Your task to perform on an android device: Clear all items from cart on bestbuy.com. Add apple airpods to the cart on bestbuy.com, then select checkout. Image 0: 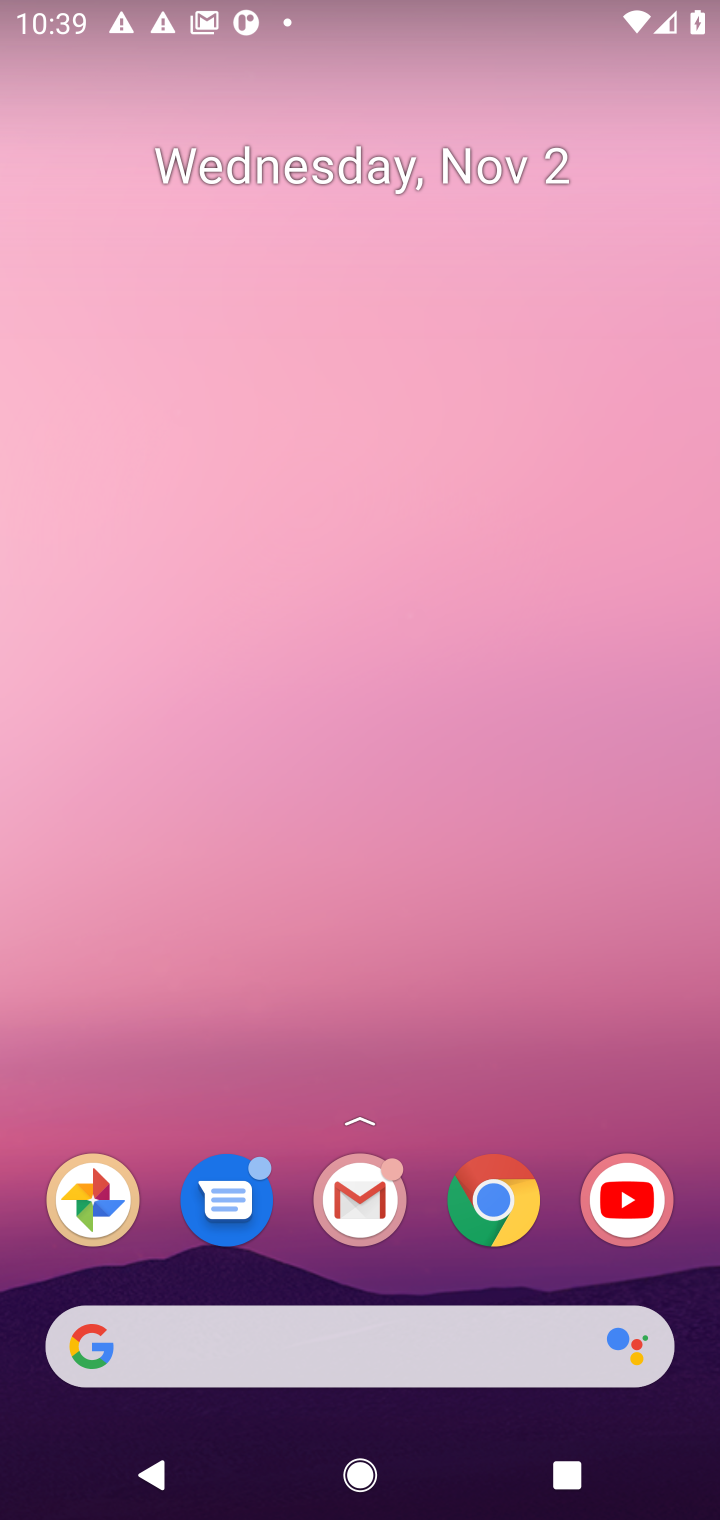
Step 0: click (507, 1205)
Your task to perform on an android device: Clear all items from cart on bestbuy.com. Add apple airpods to the cart on bestbuy.com, then select checkout. Image 1: 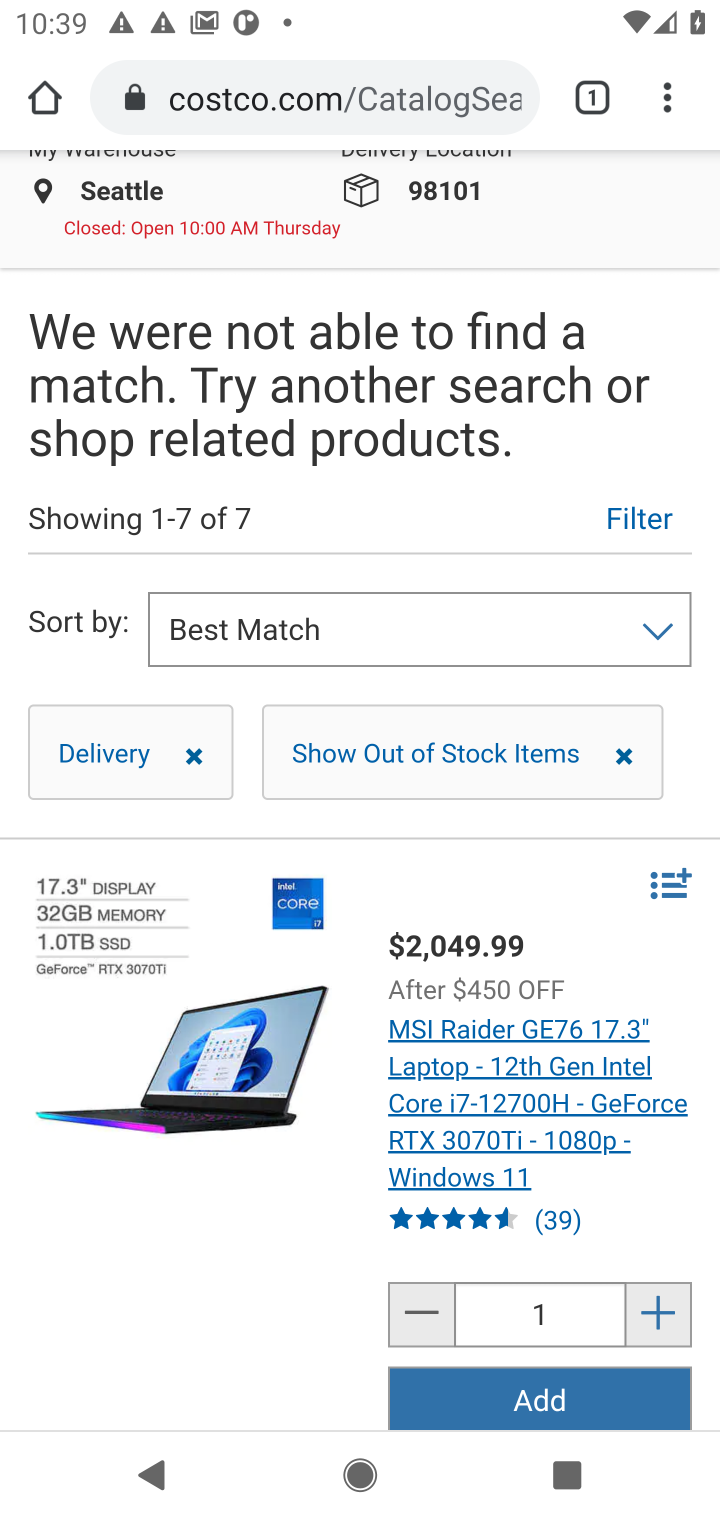
Step 1: click (375, 93)
Your task to perform on an android device: Clear all items from cart on bestbuy.com. Add apple airpods to the cart on bestbuy.com, then select checkout. Image 2: 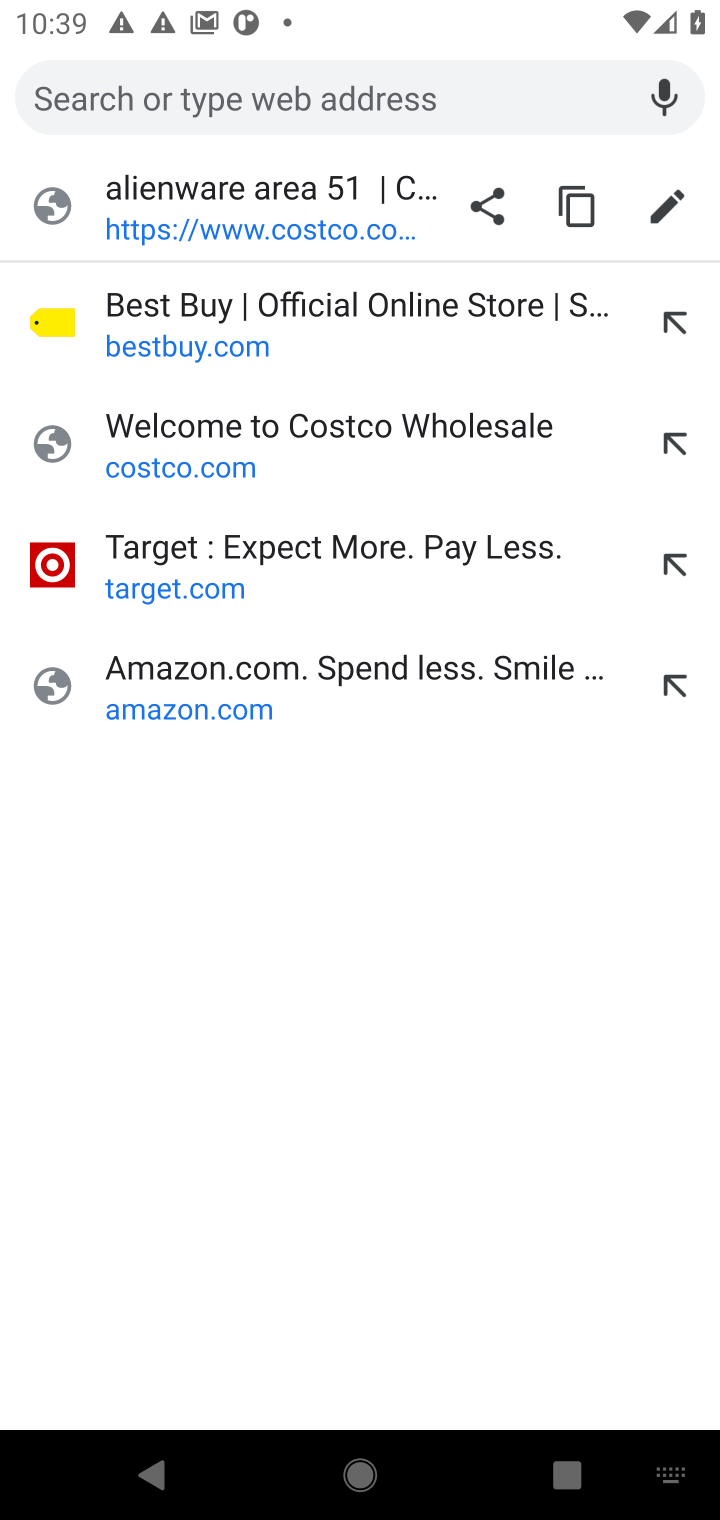
Step 2: press enter
Your task to perform on an android device: Clear all items from cart on bestbuy.com. Add apple airpods to the cart on bestbuy.com, then select checkout. Image 3: 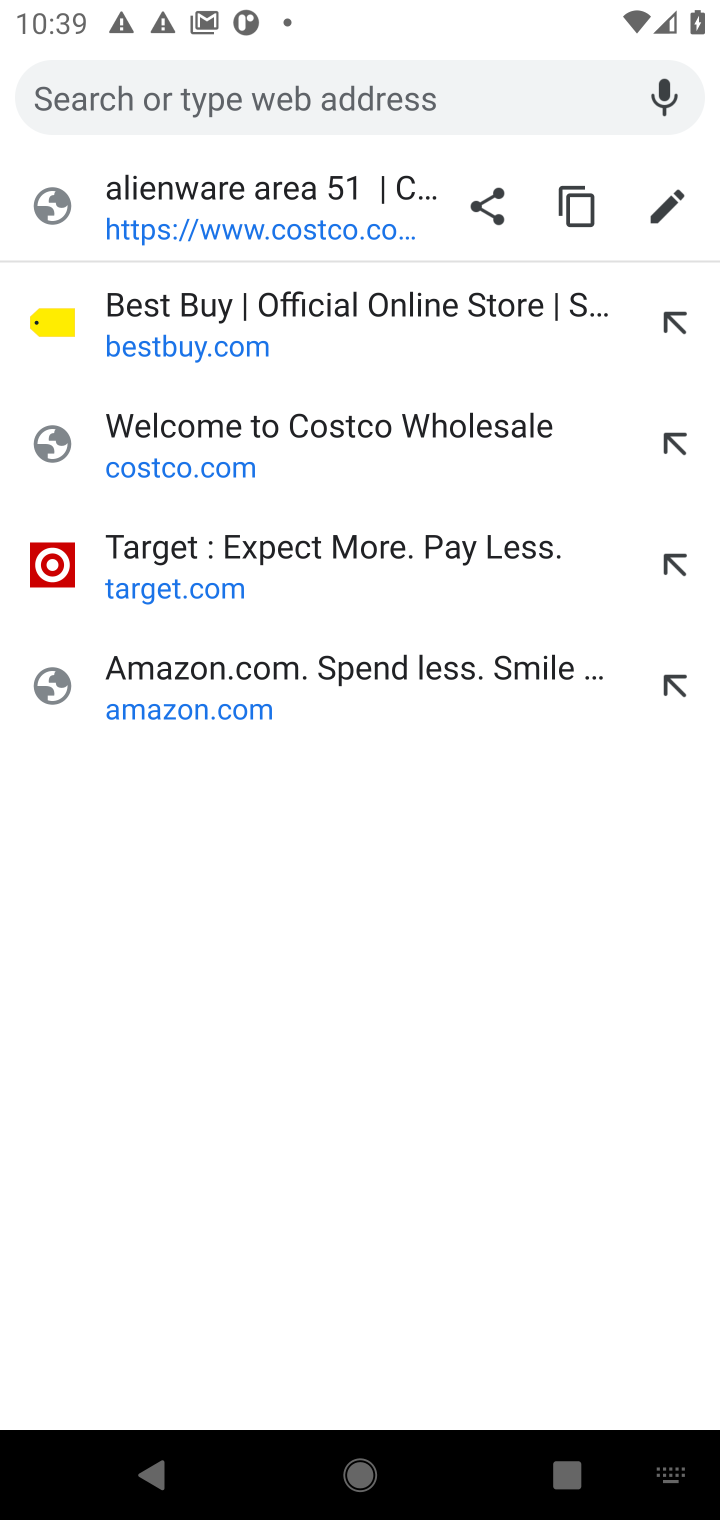
Step 3: type "bestbuy.com"
Your task to perform on an android device: Clear all items from cart on bestbuy.com. Add apple airpods to the cart on bestbuy.com, then select checkout. Image 4: 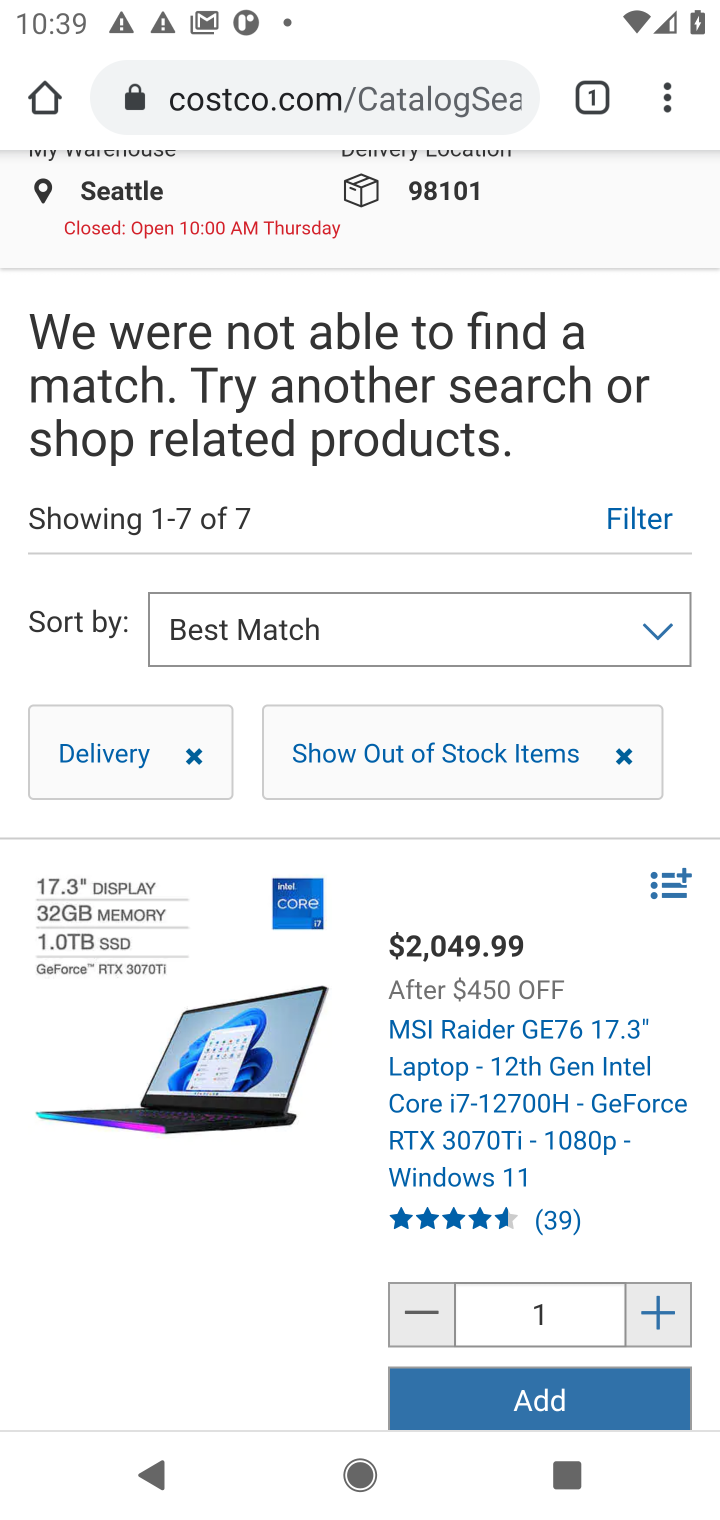
Step 4: click (460, 84)
Your task to perform on an android device: Clear all items from cart on bestbuy.com. Add apple airpods to the cart on bestbuy.com, then select checkout. Image 5: 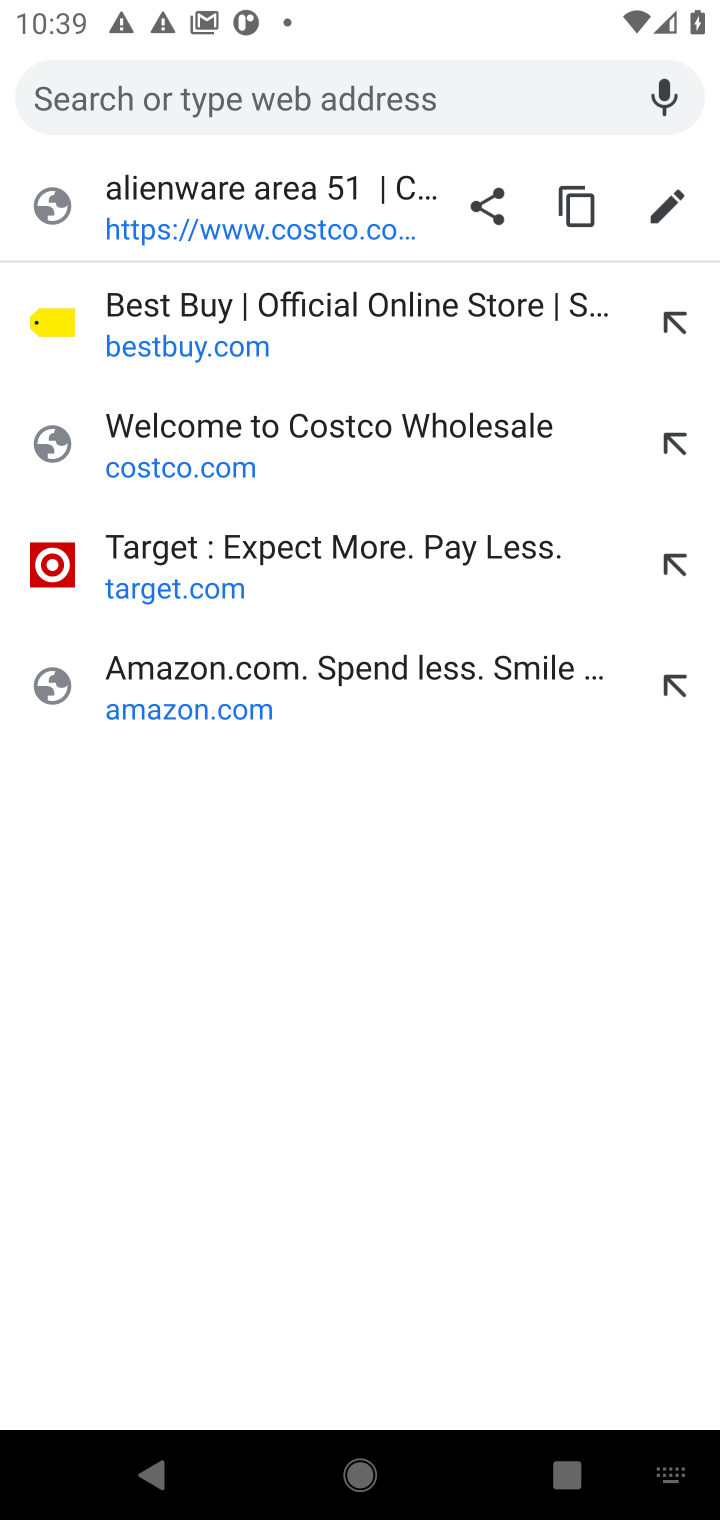
Step 5: type "bestbuy.com"
Your task to perform on an android device: Clear all items from cart on bestbuy.com. Add apple airpods to the cart on bestbuy.com, then select checkout. Image 6: 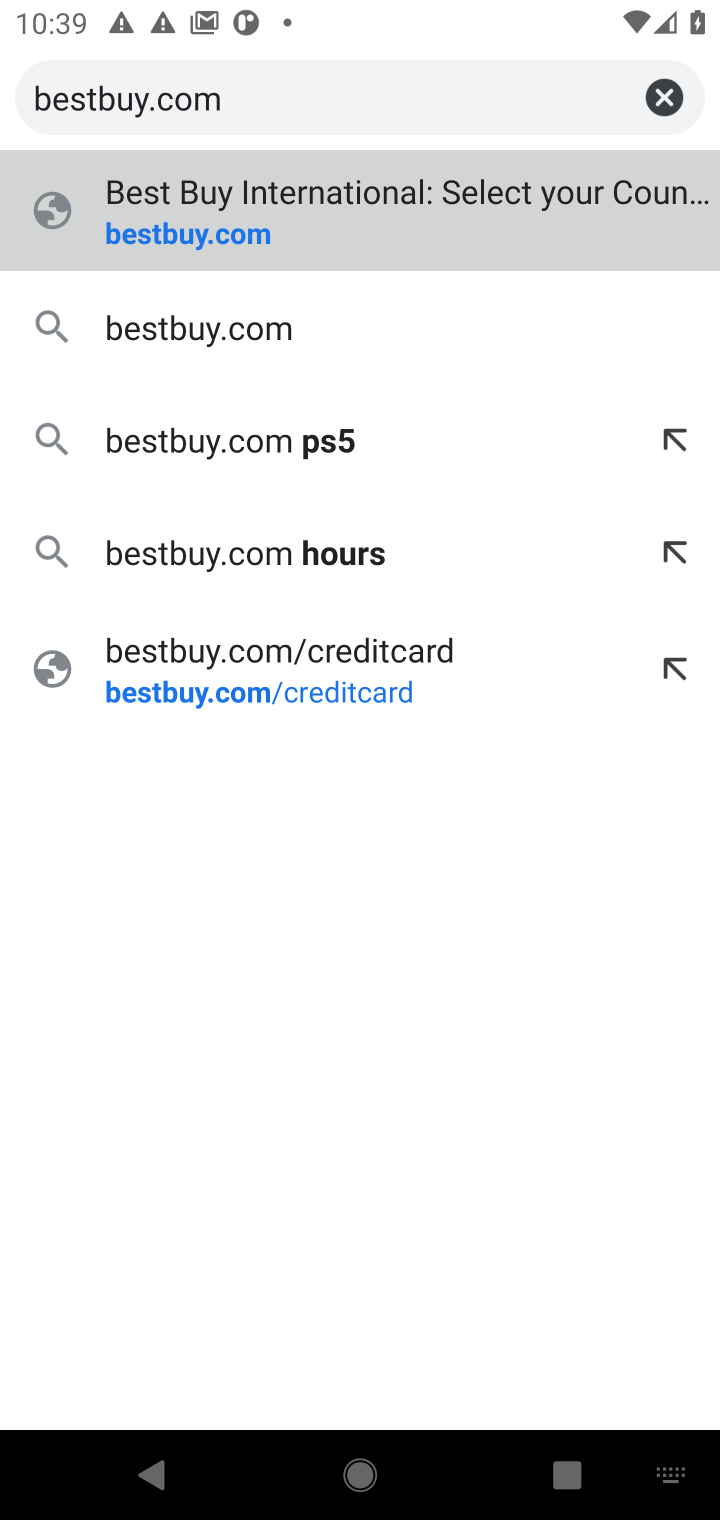
Step 6: press enter
Your task to perform on an android device: Clear all items from cart on bestbuy.com. Add apple airpods to the cart on bestbuy.com, then select checkout. Image 7: 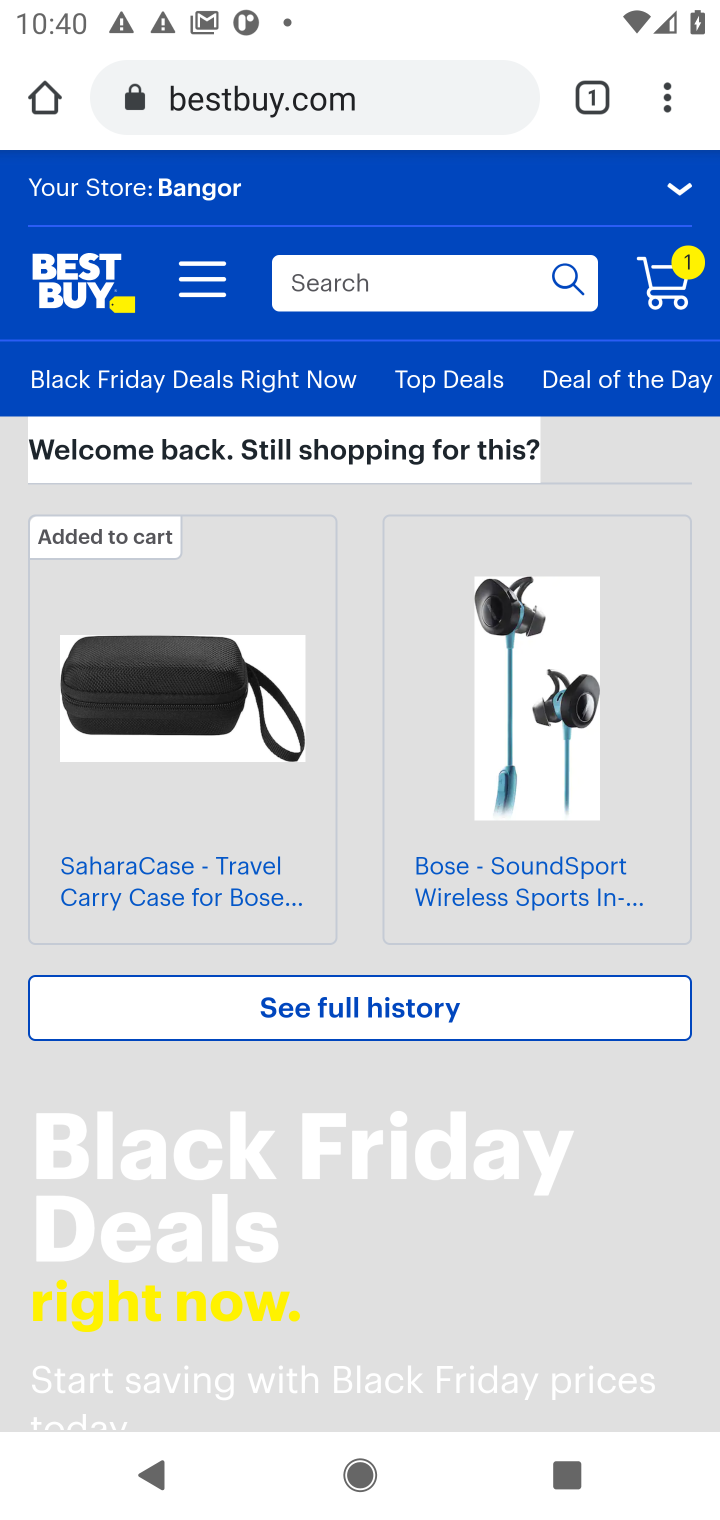
Step 7: click (444, 284)
Your task to perform on an android device: Clear all items from cart on bestbuy.com. Add apple airpods to the cart on bestbuy.com, then select checkout. Image 8: 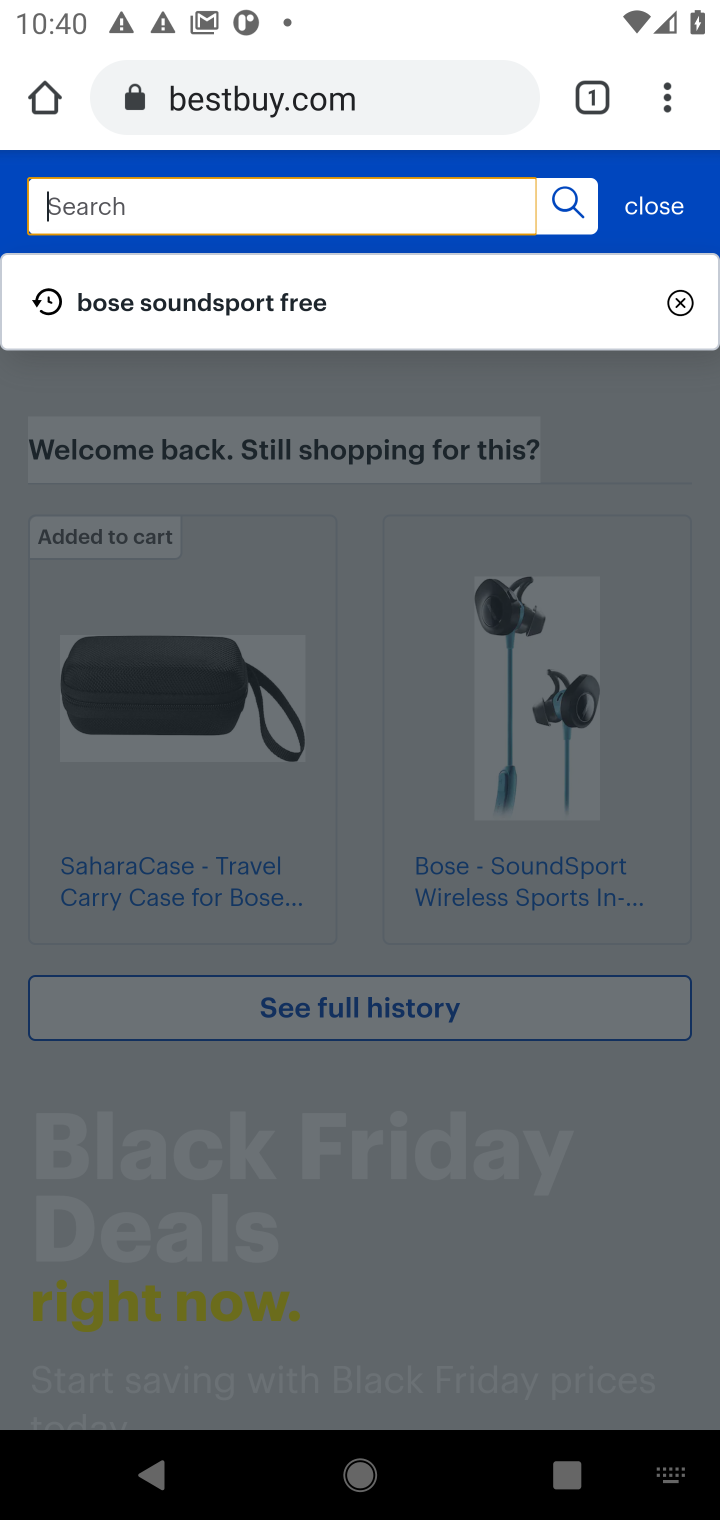
Step 8: type "apple airpods"
Your task to perform on an android device: Clear all items from cart on bestbuy.com. Add apple airpods to the cart on bestbuy.com, then select checkout. Image 9: 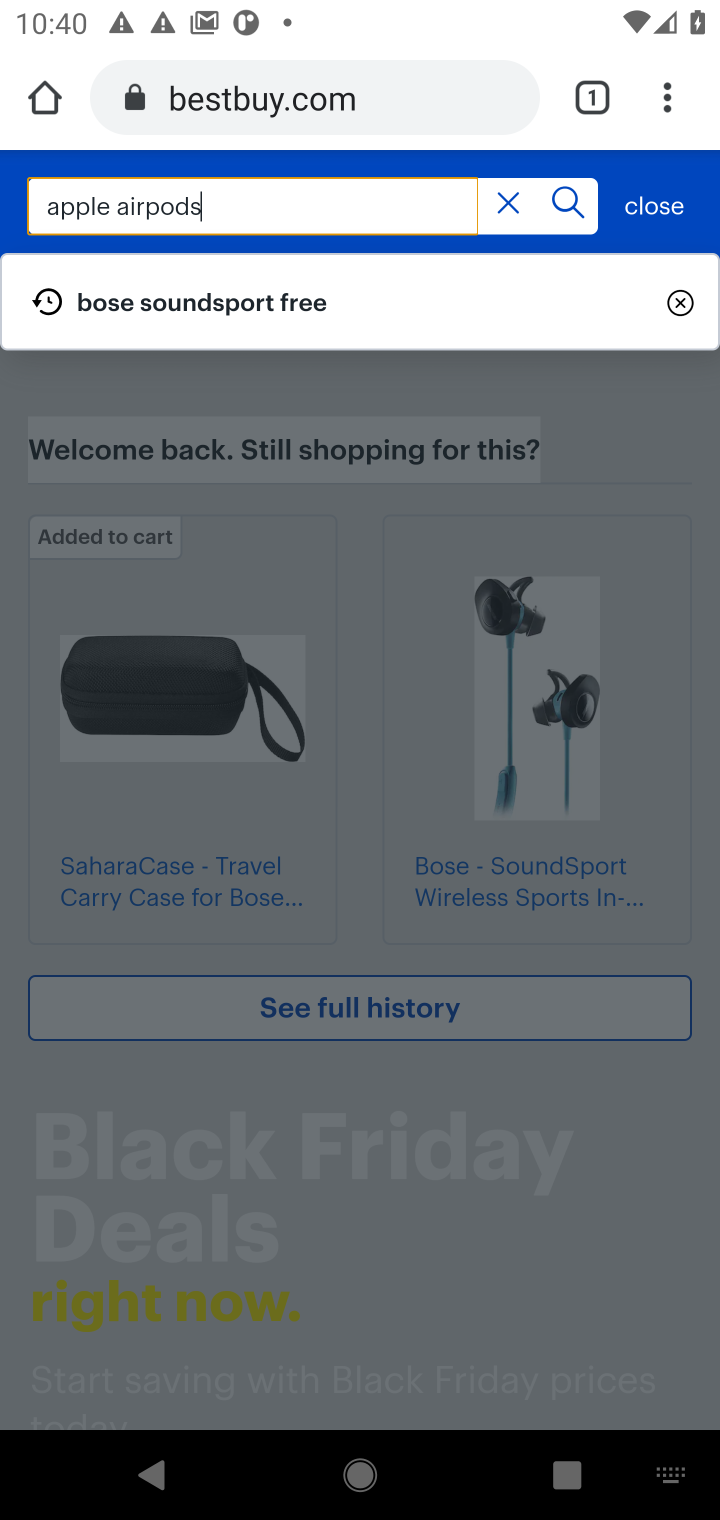
Step 9: press enter
Your task to perform on an android device: Clear all items from cart on bestbuy.com. Add apple airpods to the cart on bestbuy.com, then select checkout. Image 10: 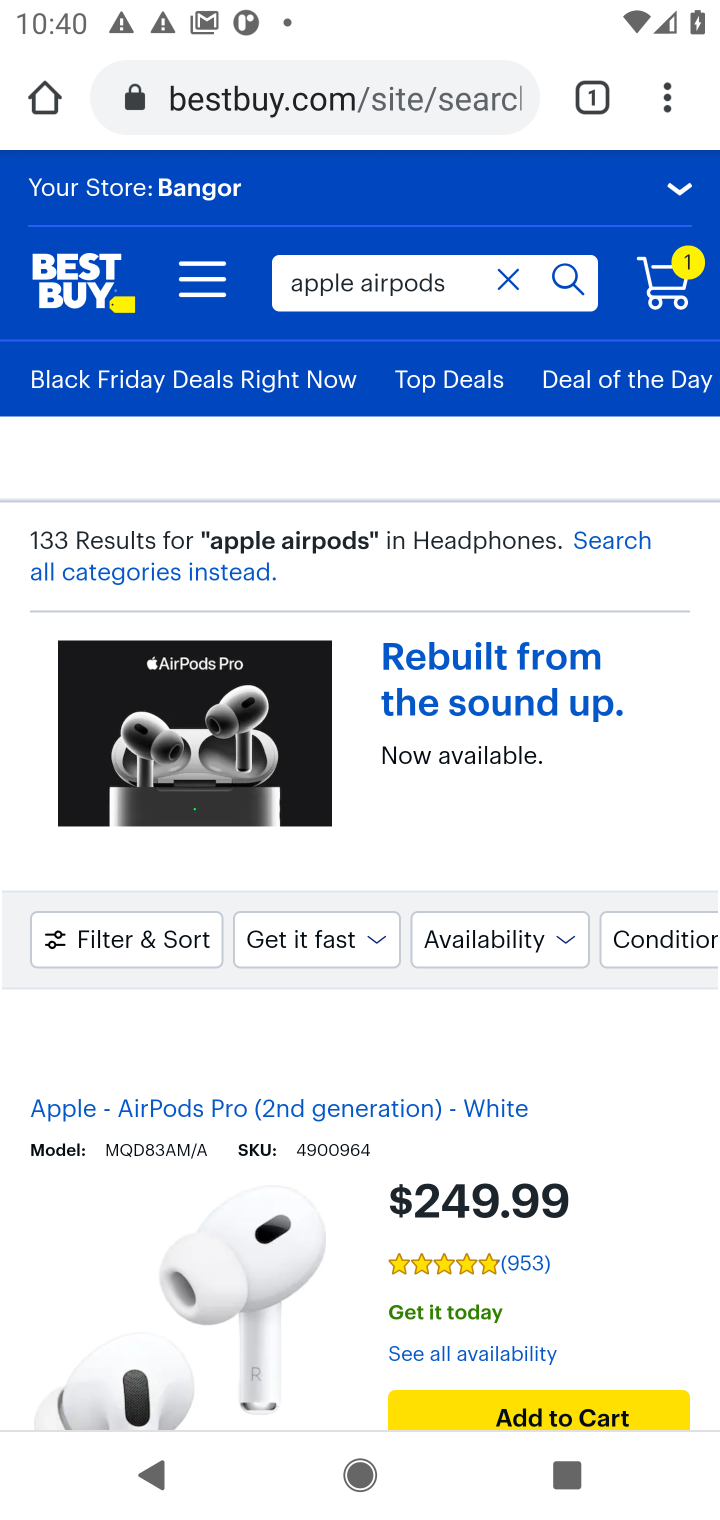
Step 10: drag from (226, 1229) to (378, 669)
Your task to perform on an android device: Clear all items from cart on bestbuy.com. Add apple airpods to the cart on bestbuy.com, then select checkout. Image 11: 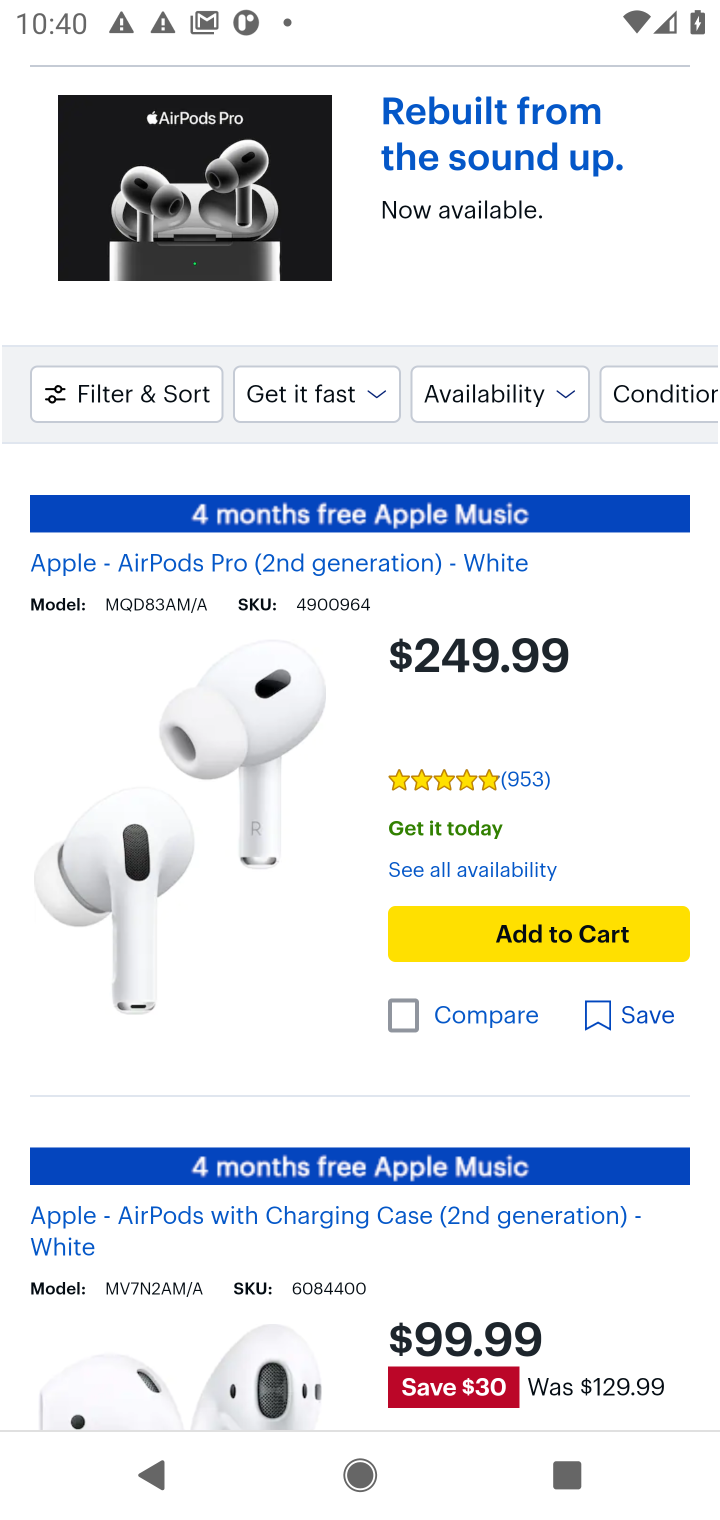
Step 11: click (172, 737)
Your task to perform on an android device: Clear all items from cart on bestbuy.com. Add apple airpods to the cart on bestbuy.com, then select checkout. Image 12: 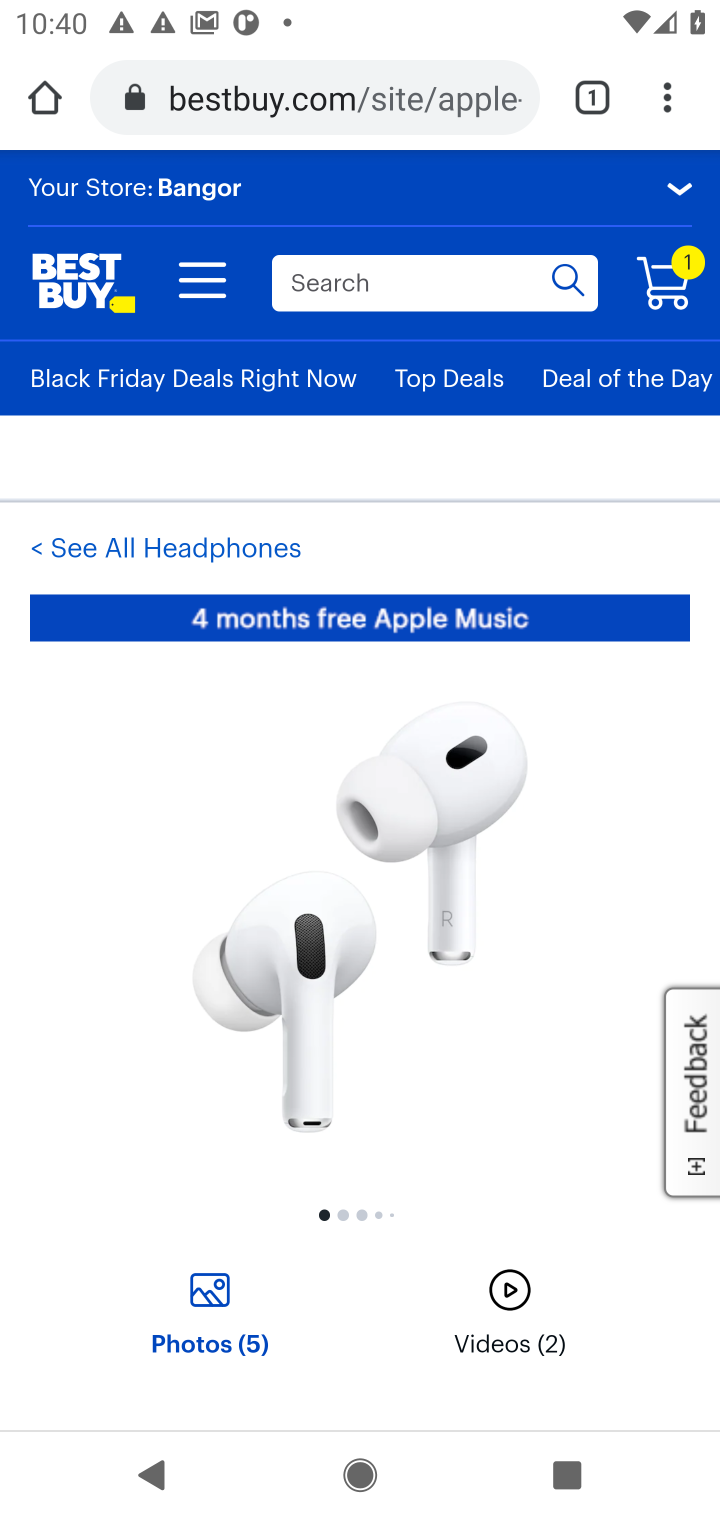
Step 12: drag from (358, 1080) to (360, 353)
Your task to perform on an android device: Clear all items from cart on bestbuy.com. Add apple airpods to the cart on bestbuy.com, then select checkout. Image 13: 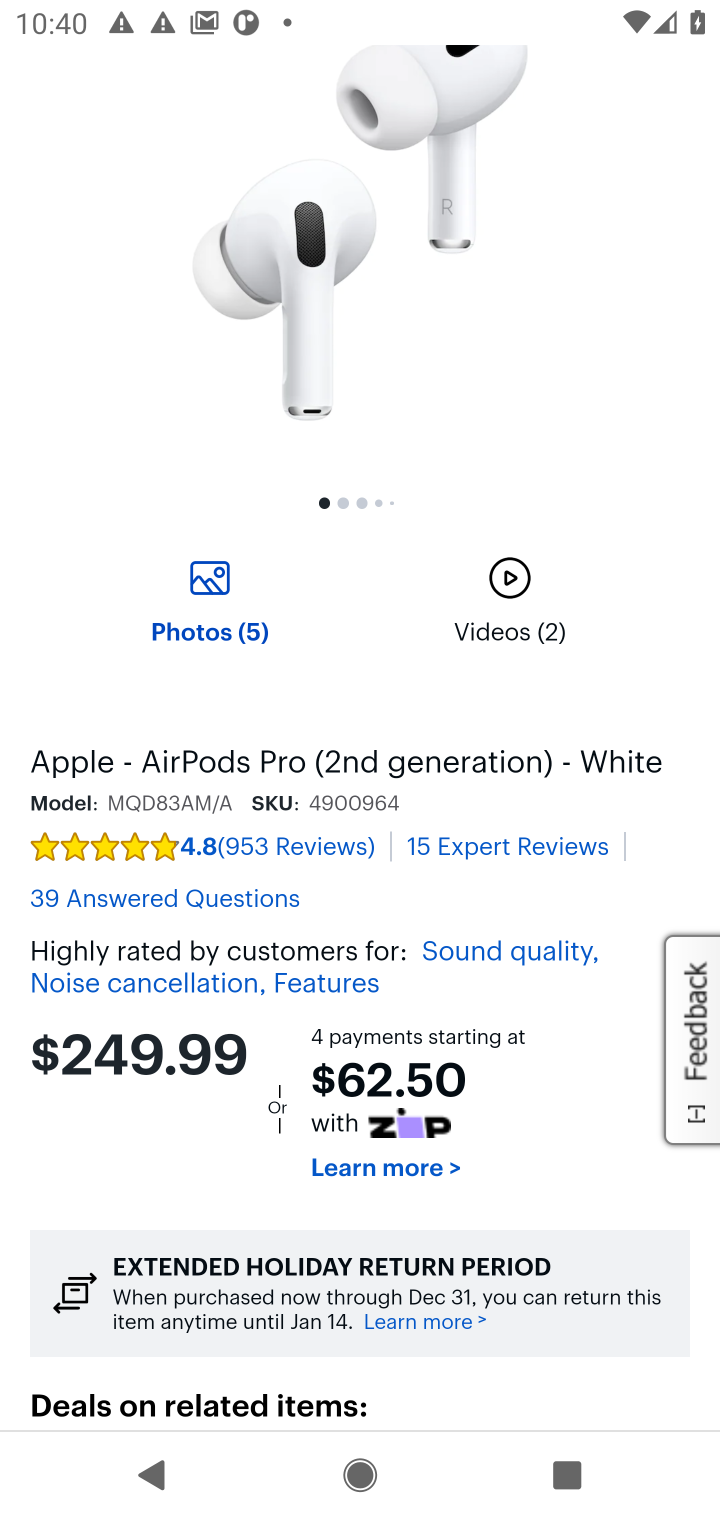
Step 13: drag from (502, 1074) to (514, 440)
Your task to perform on an android device: Clear all items from cart on bestbuy.com. Add apple airpods to the cart on bestbuy.com, then select checkout. Image 14: 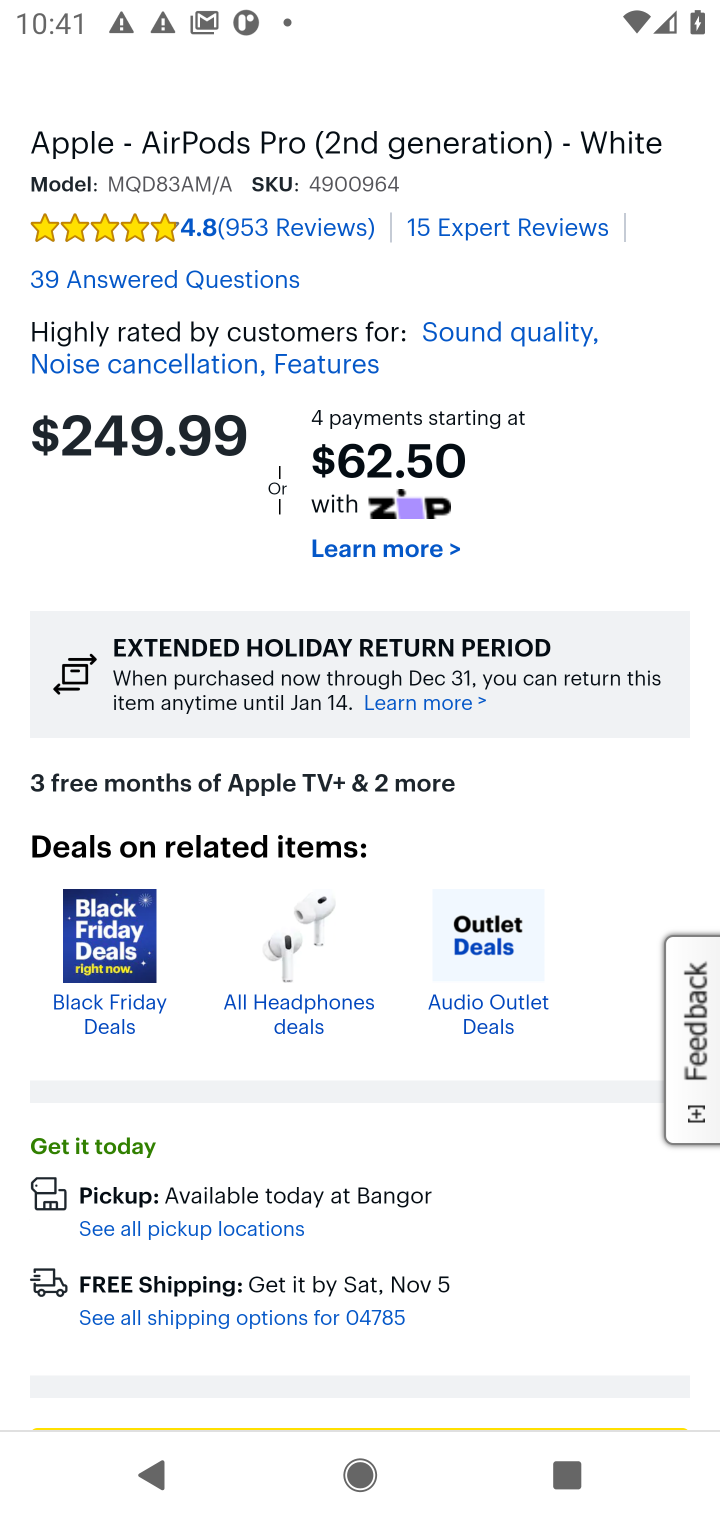
Step 14: drag from (553, 889) to (537, 438)
Your task to perform on an android device: Clear all items from cart on bestbuy.com. Add apple airpods to the cart on bestbuy.com, then select checkout. Image 15: 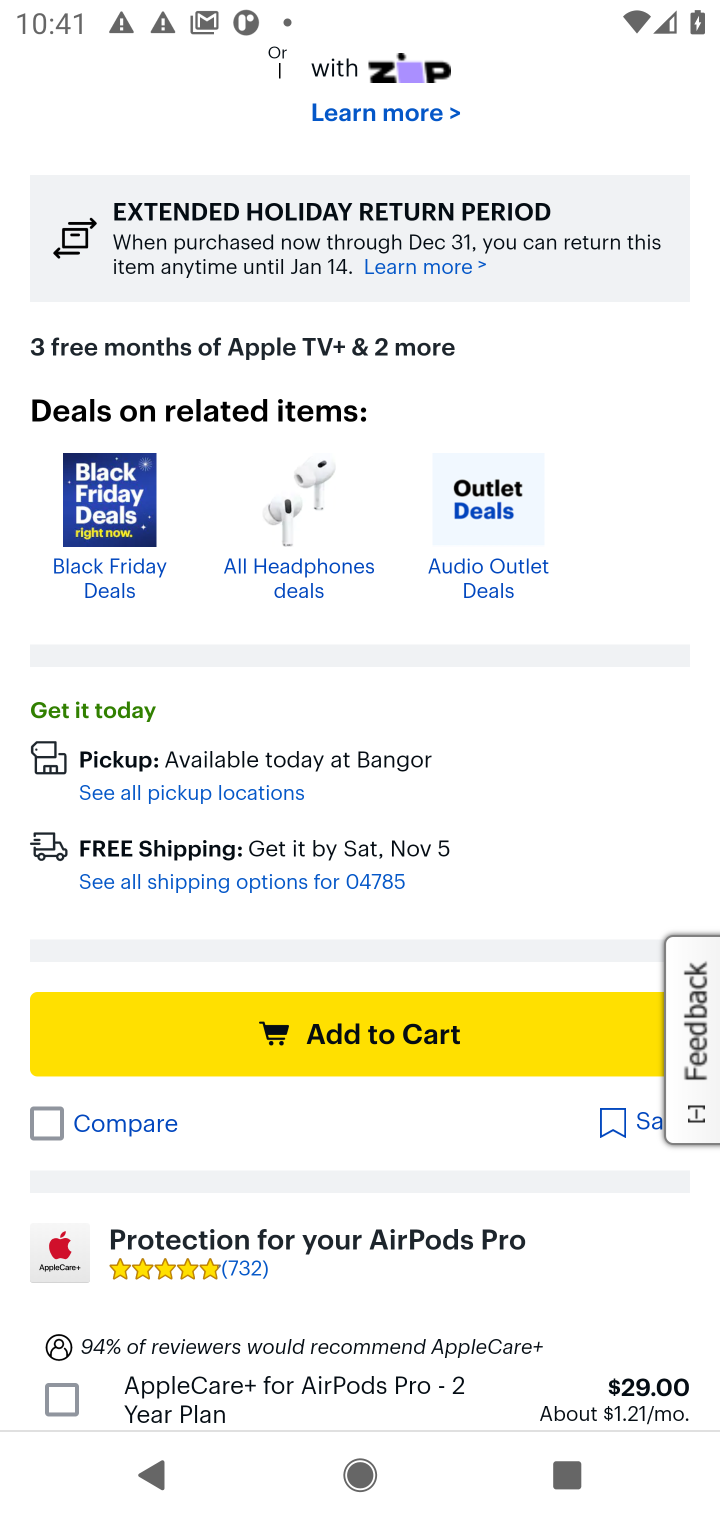
Step 15: click (448, 1034)
Your task to perform on an android device: Clear all items from cart on bestbuy.com. Add apple airpods to the cart on bestbuy.com, then select checkout. Image 16: 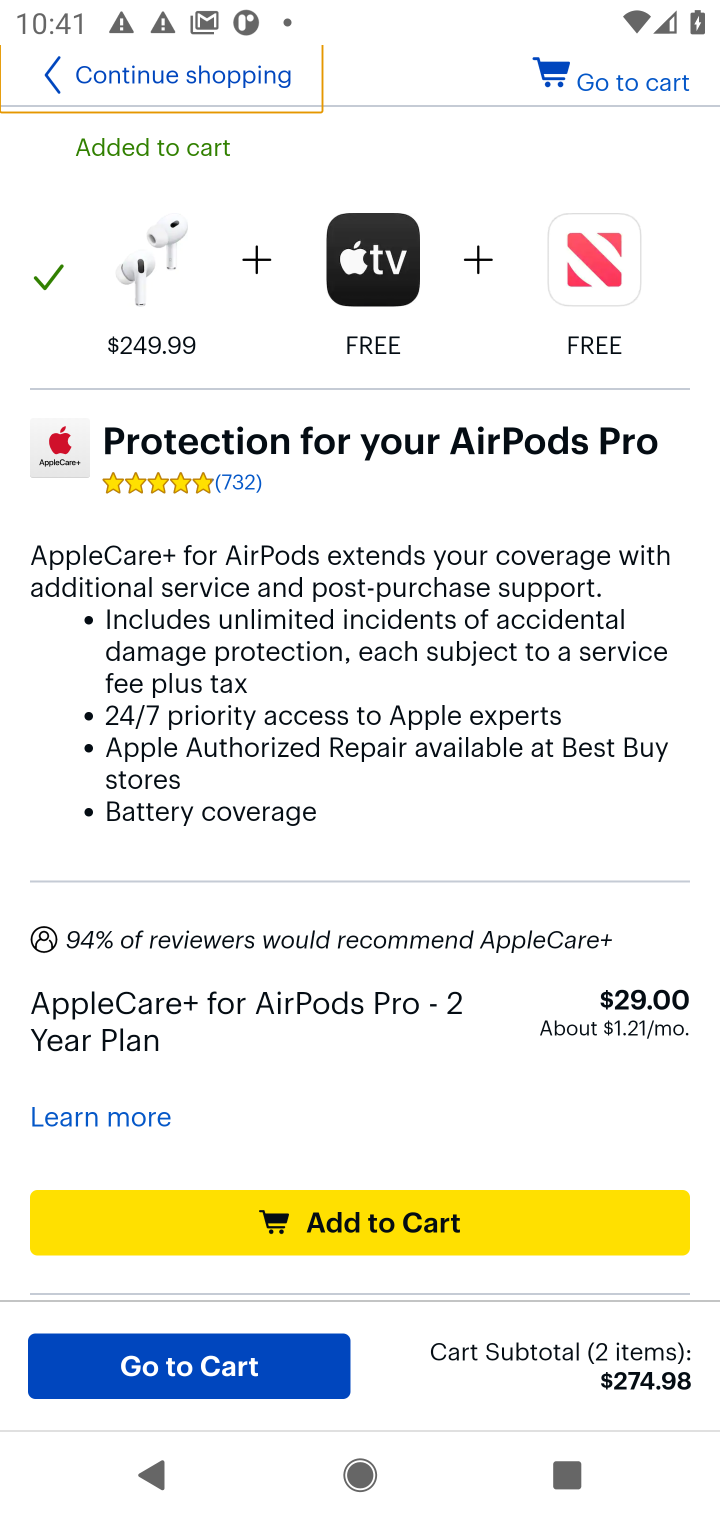
Step 16: click (216, 1367)
Your task to perform on an android device: Clear all items from cart on bestbuy.com. Add apple airpods to the cart on bestbuy.com, then select checkout. Image 17: 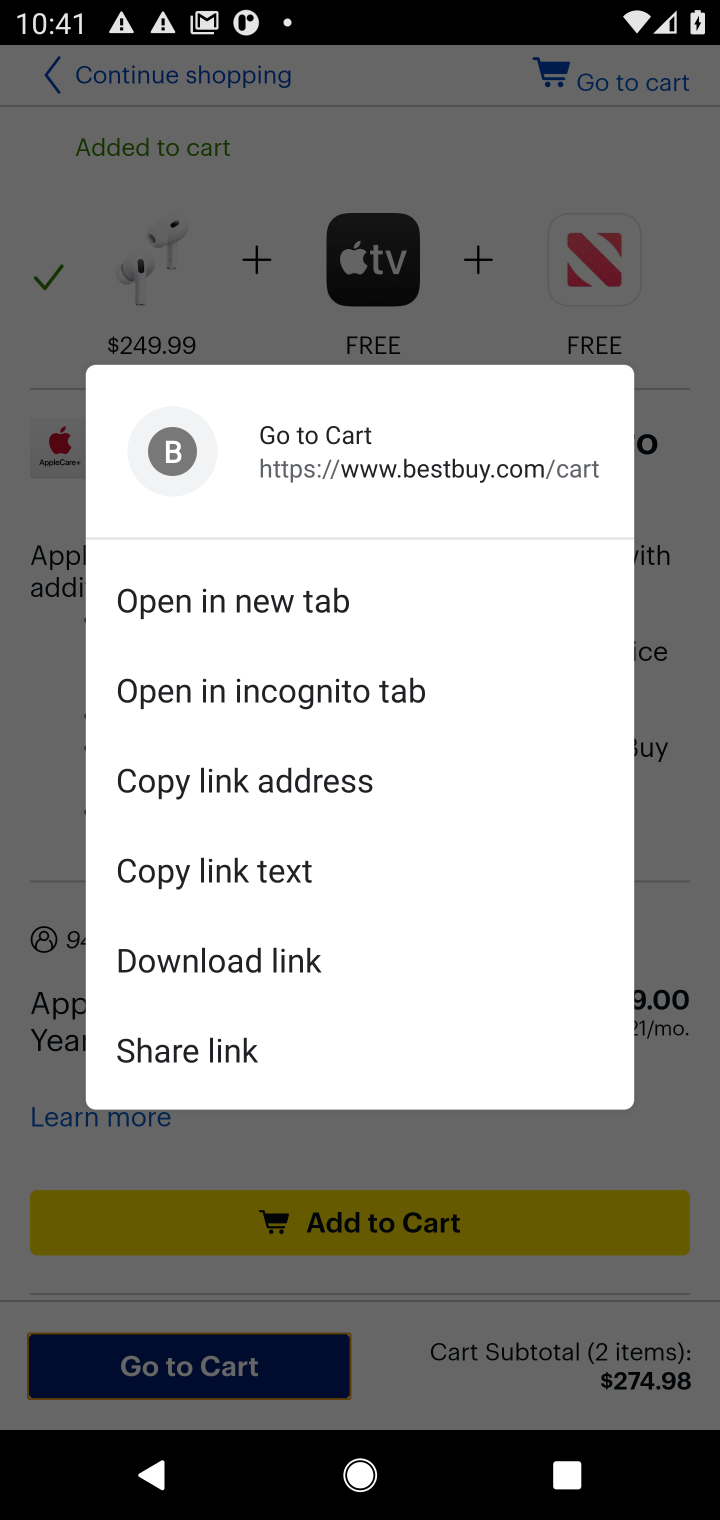
Step 17: click (216, 1367)
Your task to perform on an android device: Clear all items from cart on bestbuy.com. Add apple airpods to the cart on bestbuy.com, then select checkout. Image 18: 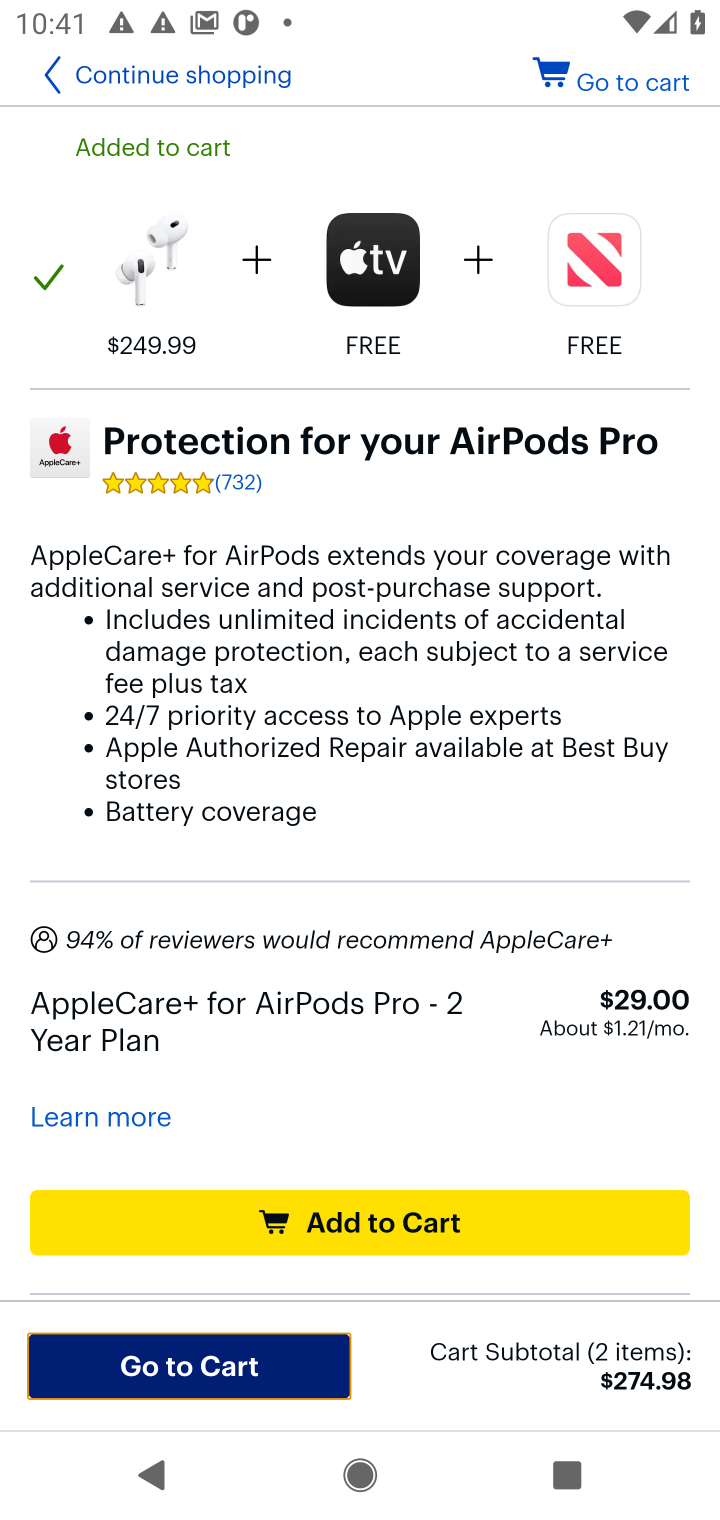
Step 18: click (216, 1367)
Your task to perform on an android device: Clear all items from cart on bestbuy.com. Add apple airpods to the cart on bestbuy.com, then select checkout. Image 19: 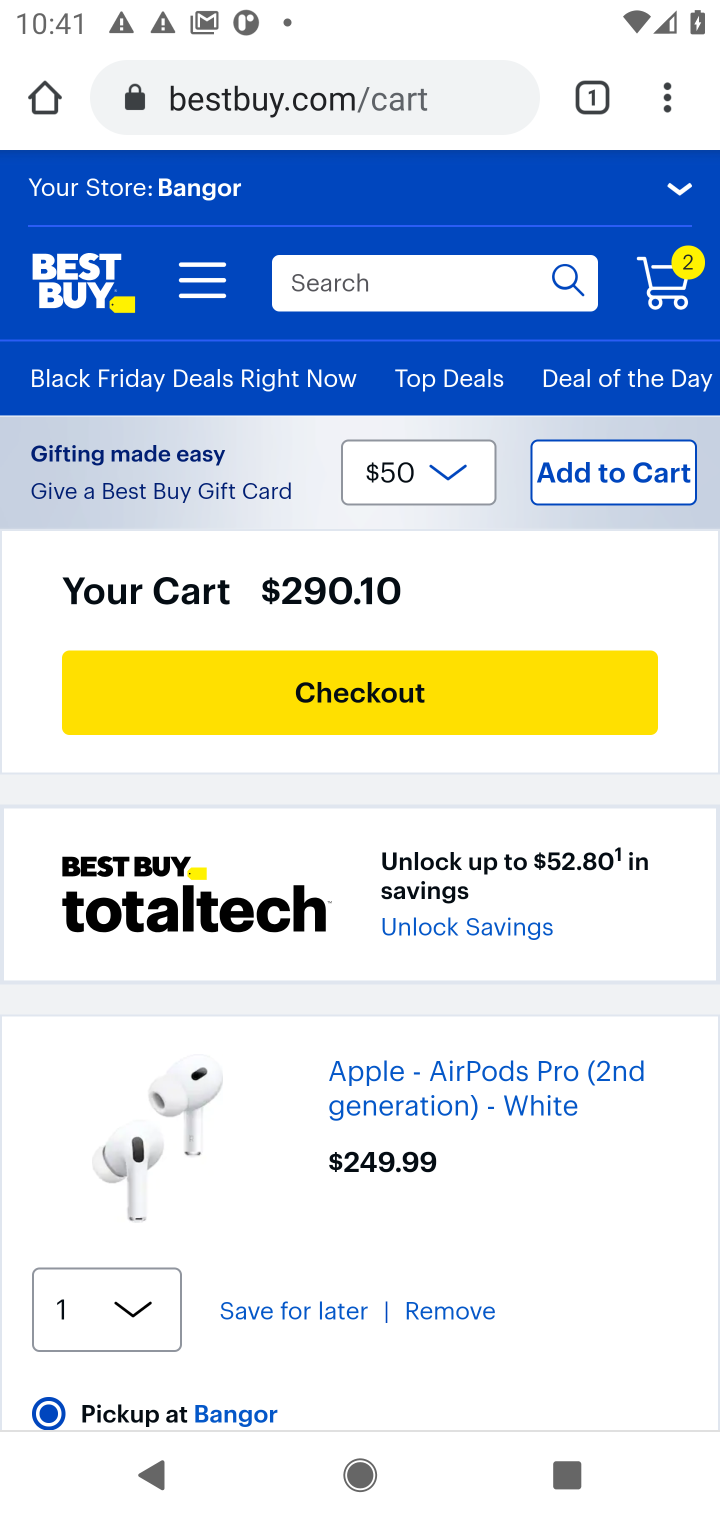
Step 19: click (407, 687)
Your task to perform on an android device: Clear all items from cart on bestbuy.com. Add apple airpods to the cart on bestbuy.com, then select checkout. Image 20: 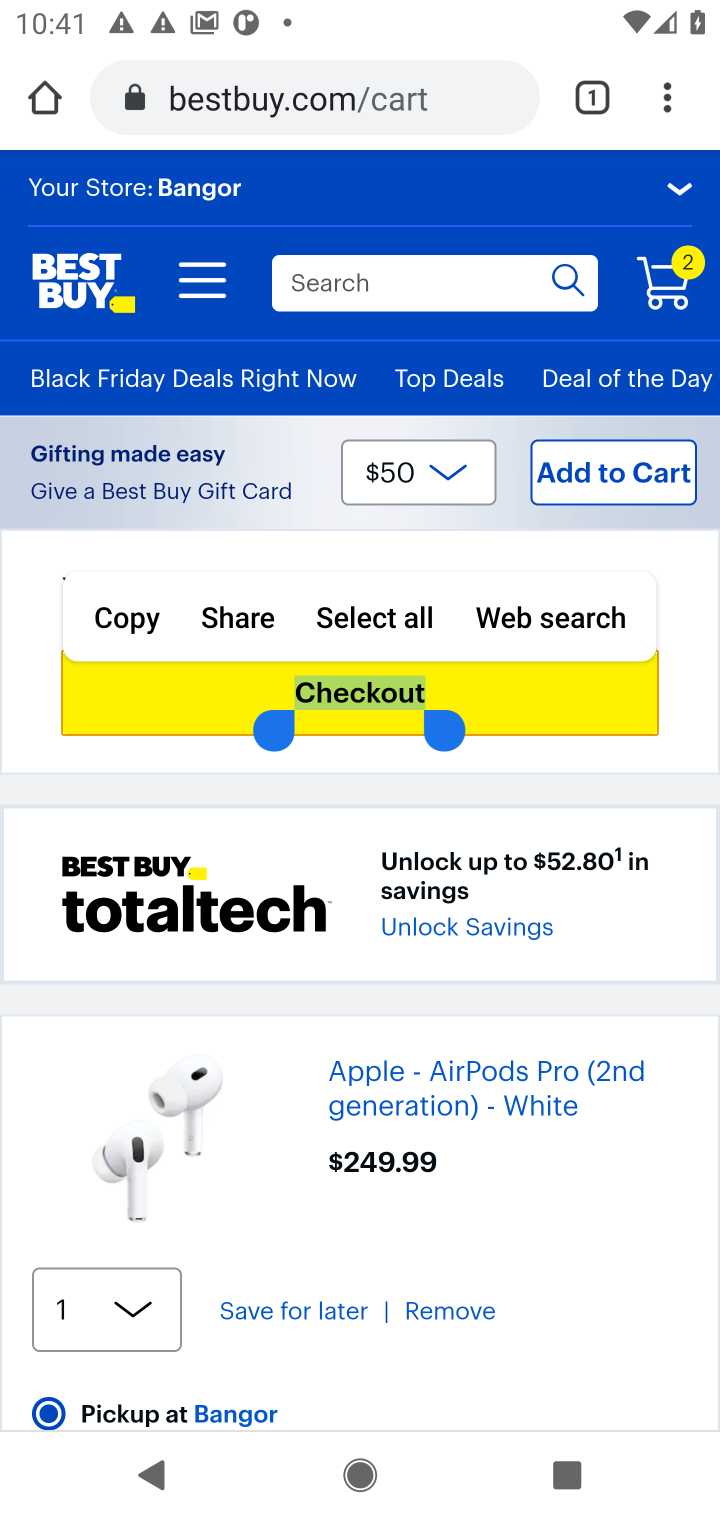
Step 20: click (529, 705)
Your task to perform on an android device: Clear all items from cart on bestbuy.com. Add apple airpods to the cart on bestbuy.com, then select checkout. Image 21: 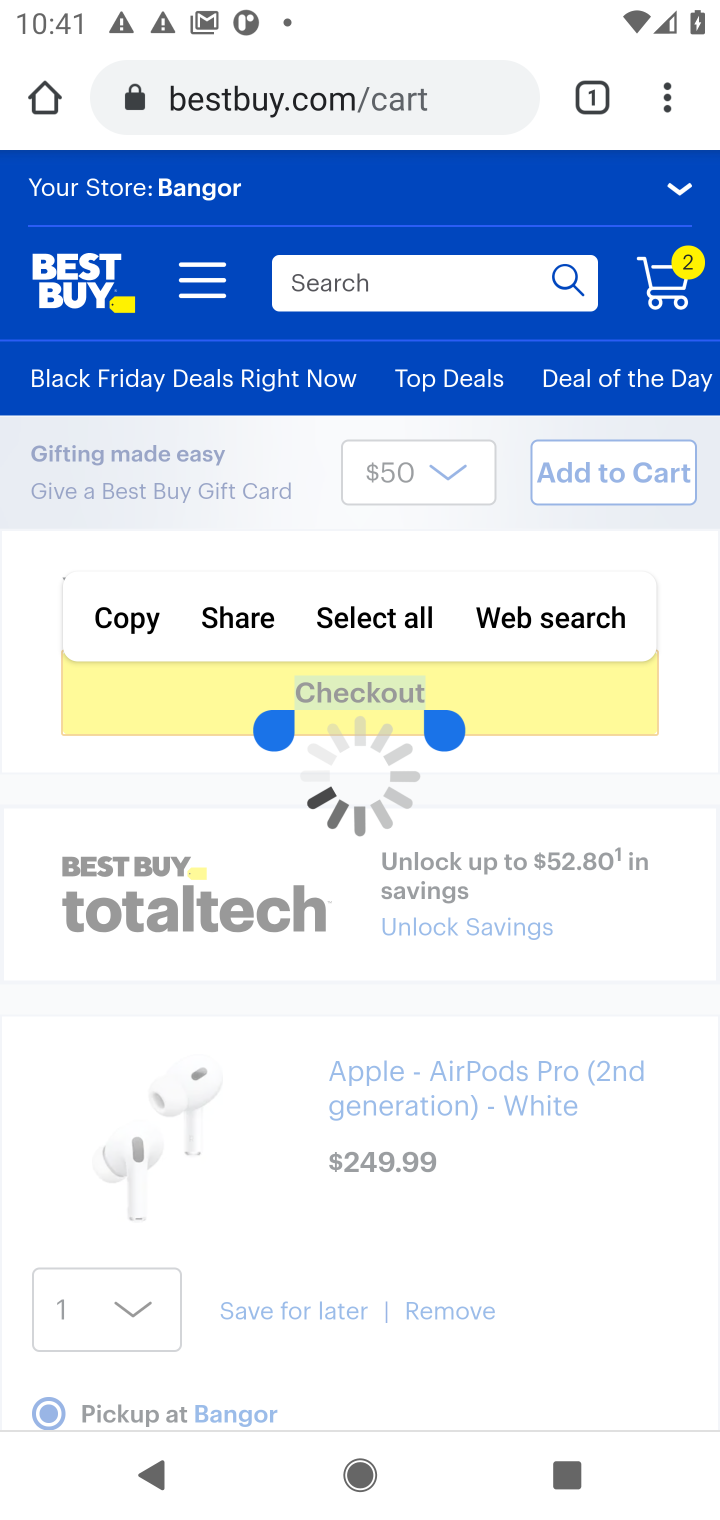
Step 21: click (339, 691)
Your task to perform on an android device: Clear all items from cart on bestbuy.com. Add apple airpods to the cart on bestbuy.com, then select checkout. Image 22: 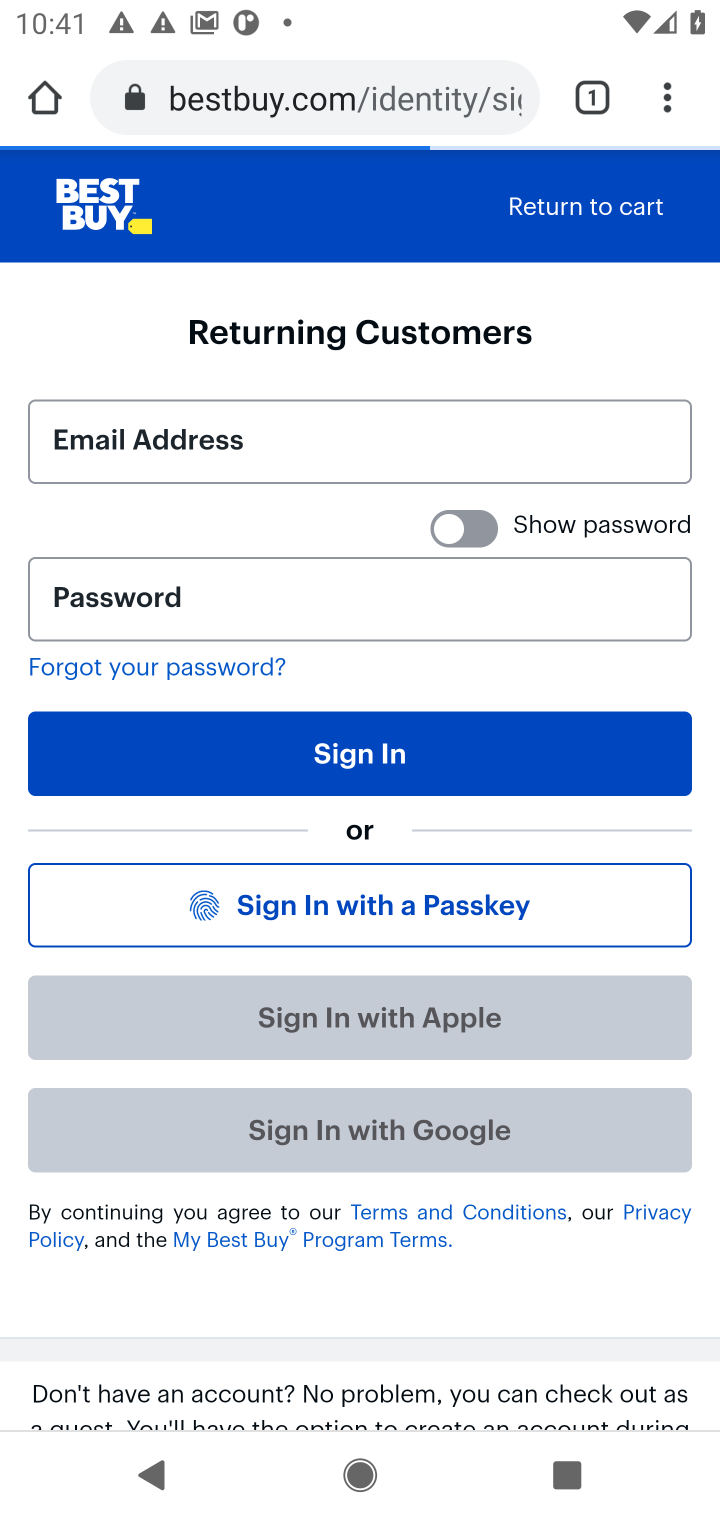
Step 22: task complete